Your task to perform on an android device: Search for the new nintendo switch on Walmart. Image 0: 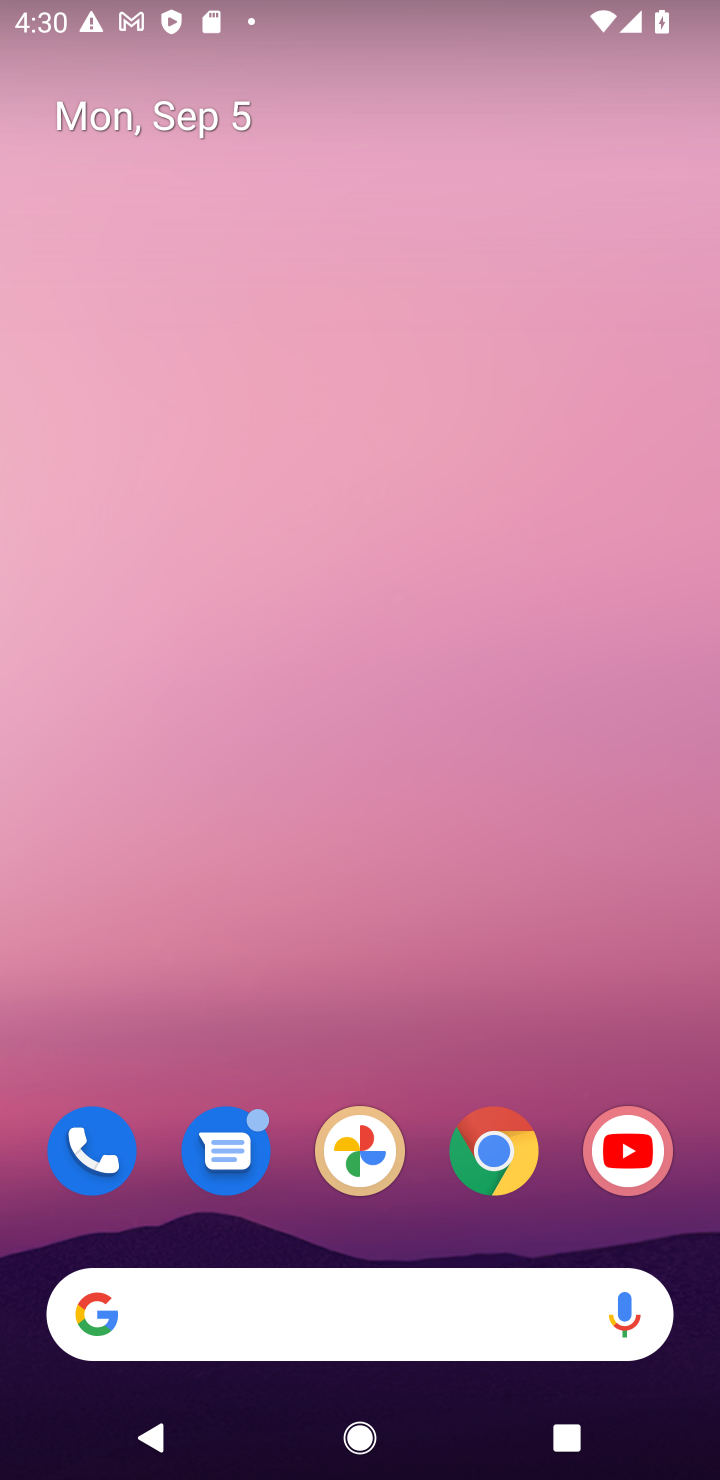
Step 0: click (539, 525)
Your task to perform on an android device: Search for the new nintendo switch on Walmart. Image 1: 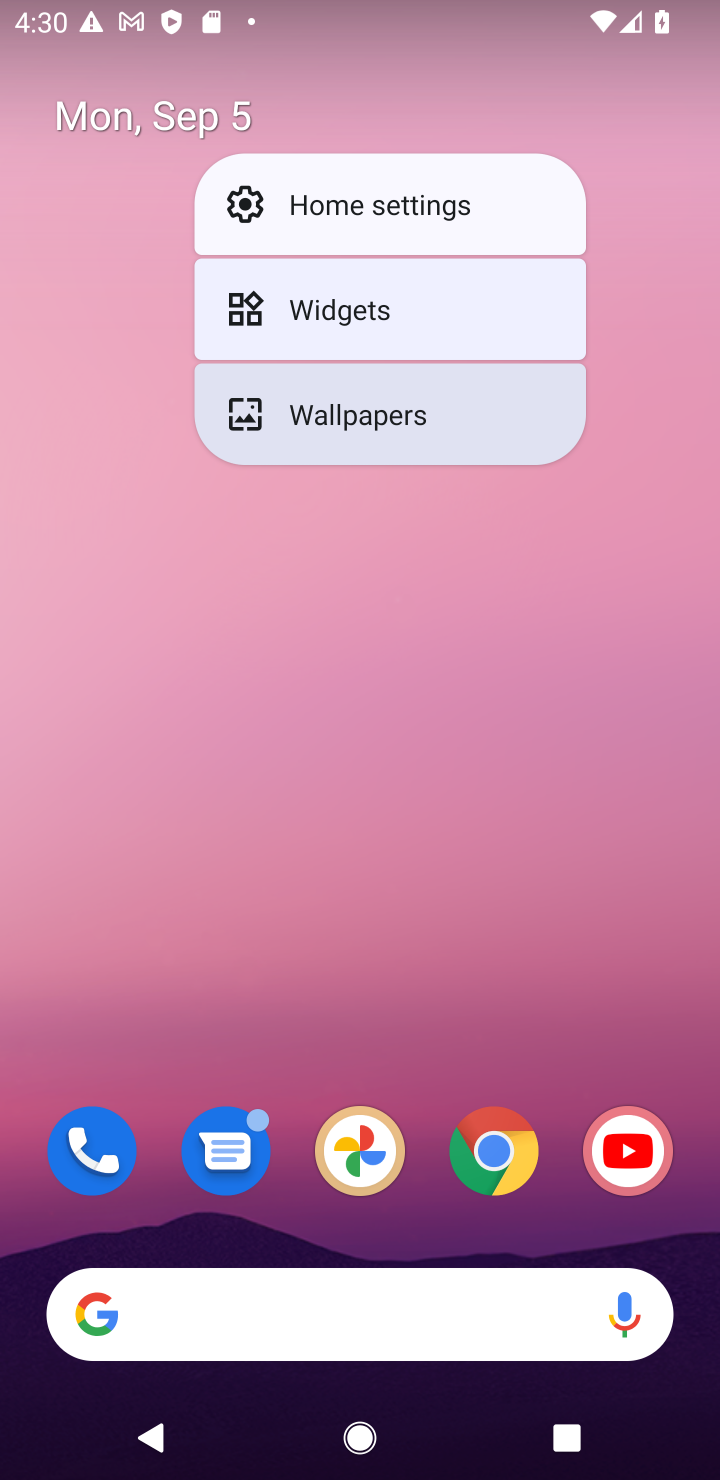
Step 1: click (495, 1146)
Your task to perform on an android device: Search for the new nintendo switch on Walmart. Image 2: 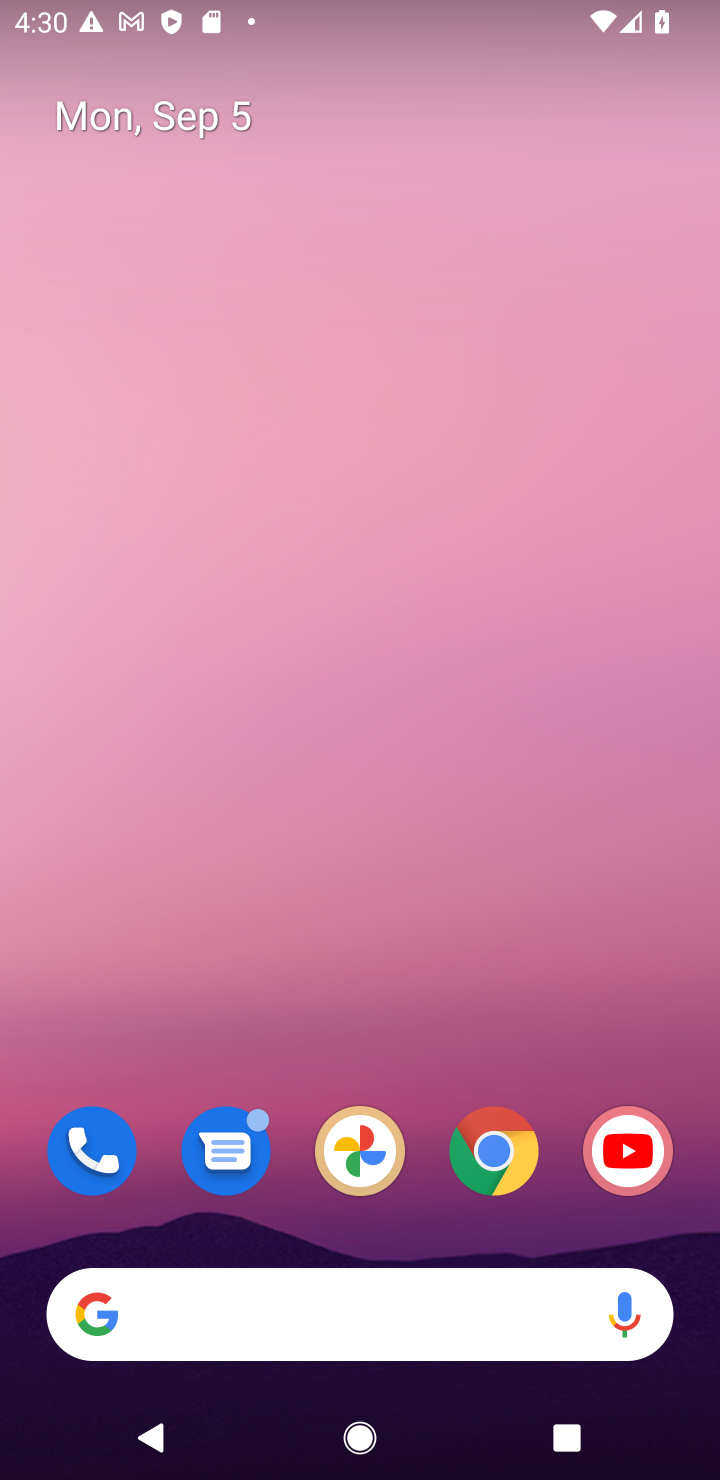
Step 2: click (495, 1164)
Your task to perform on an android device: Search for the new nintendo switch on Walmart. Image 3: 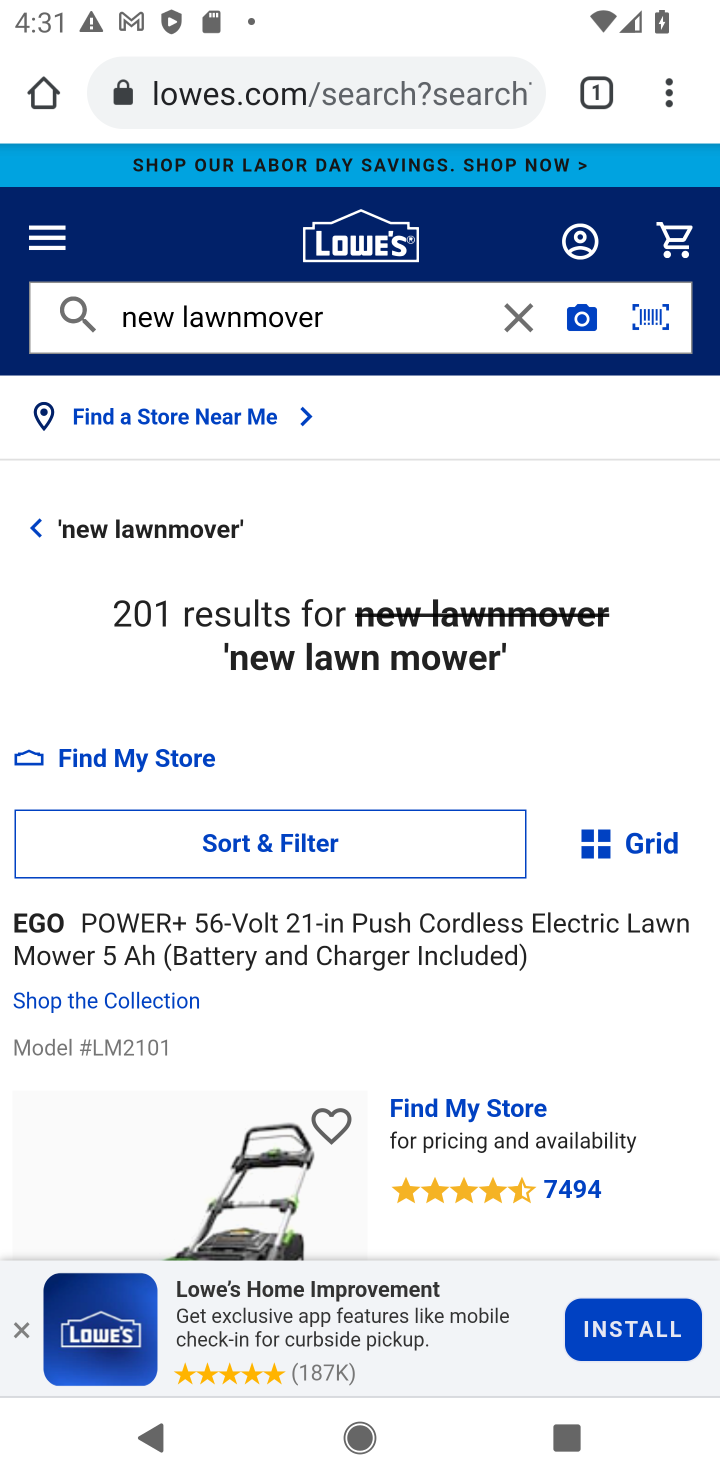
Step 3: click (470, 109)
Your task to perform on an android device: Search for the new nintendo switch on Walmart. Image 4: 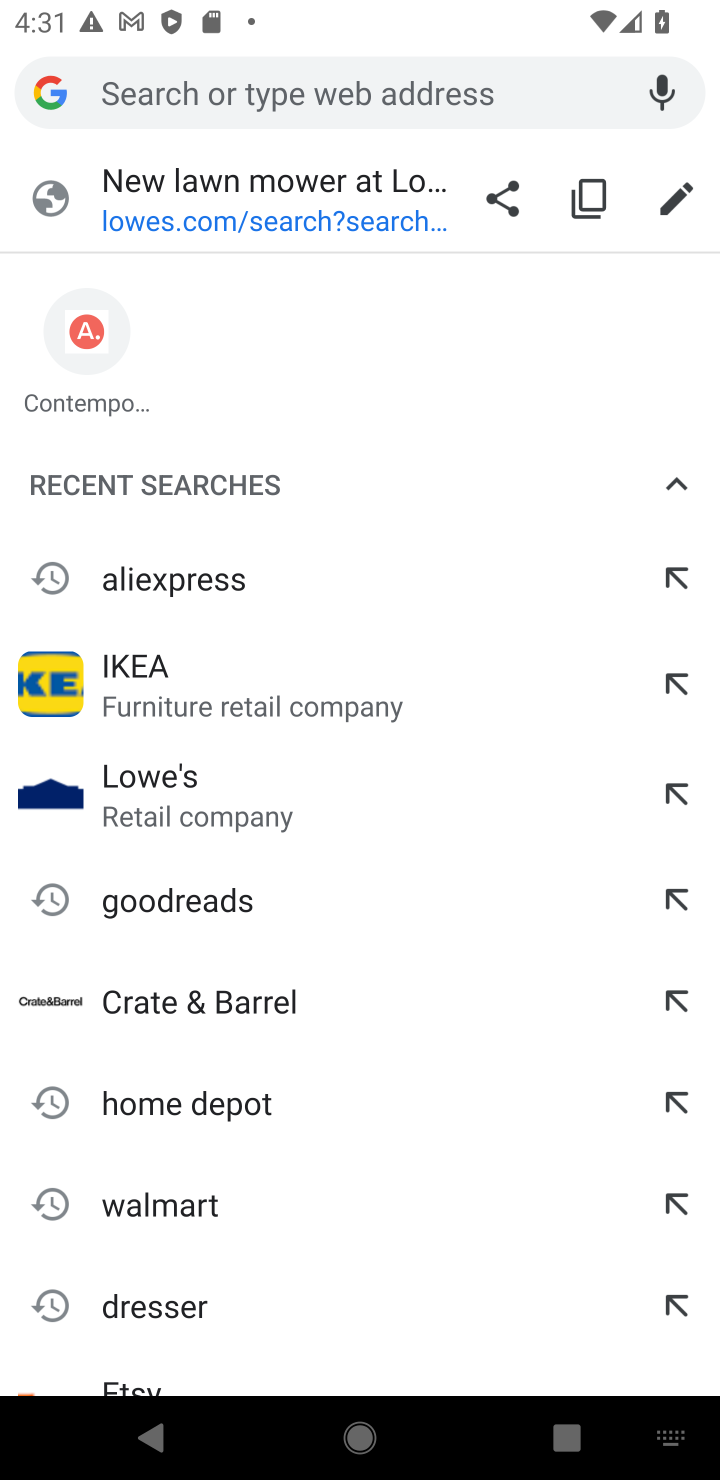
Step 4: click (252, 1225)
Your task to perform on an android device: Search for the new nintendo switch on Walmart. Image 5: 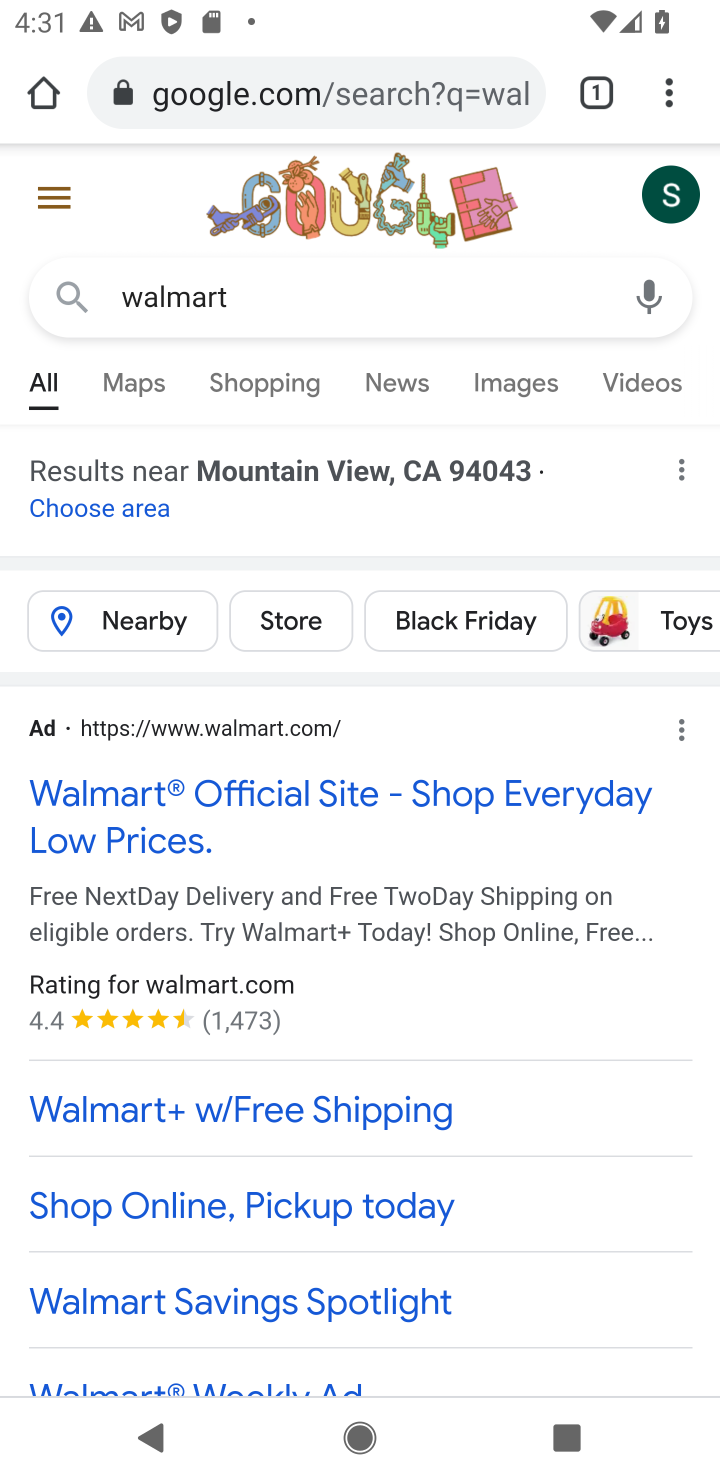
Step 5: drag from (329, 1107) to (257, 14)
Your task to perform on an android device: Search for the new nintendo switch on Walmart. Image 6: 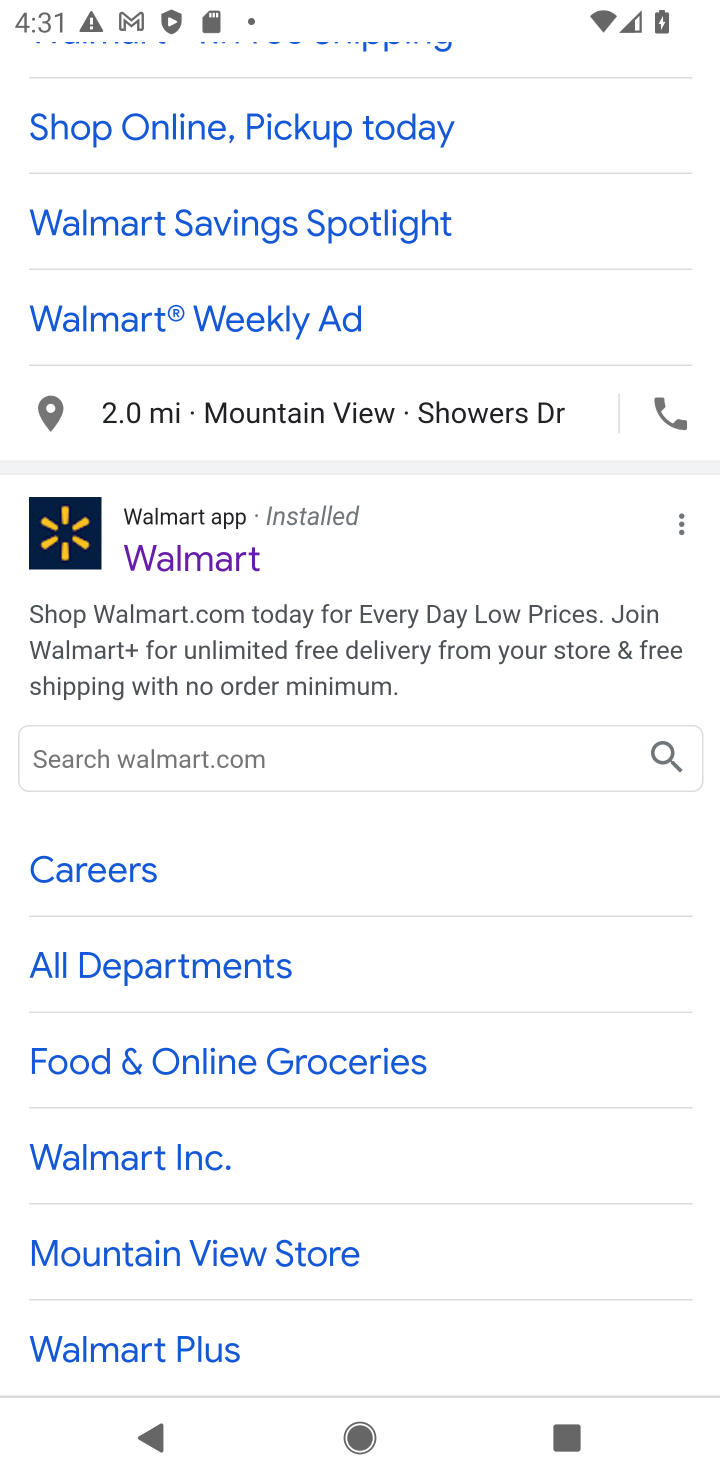
Step 6: click (209, 577)
Your task to perform on an android device: Search for the new nintendo switch on Walmart. Image 7: 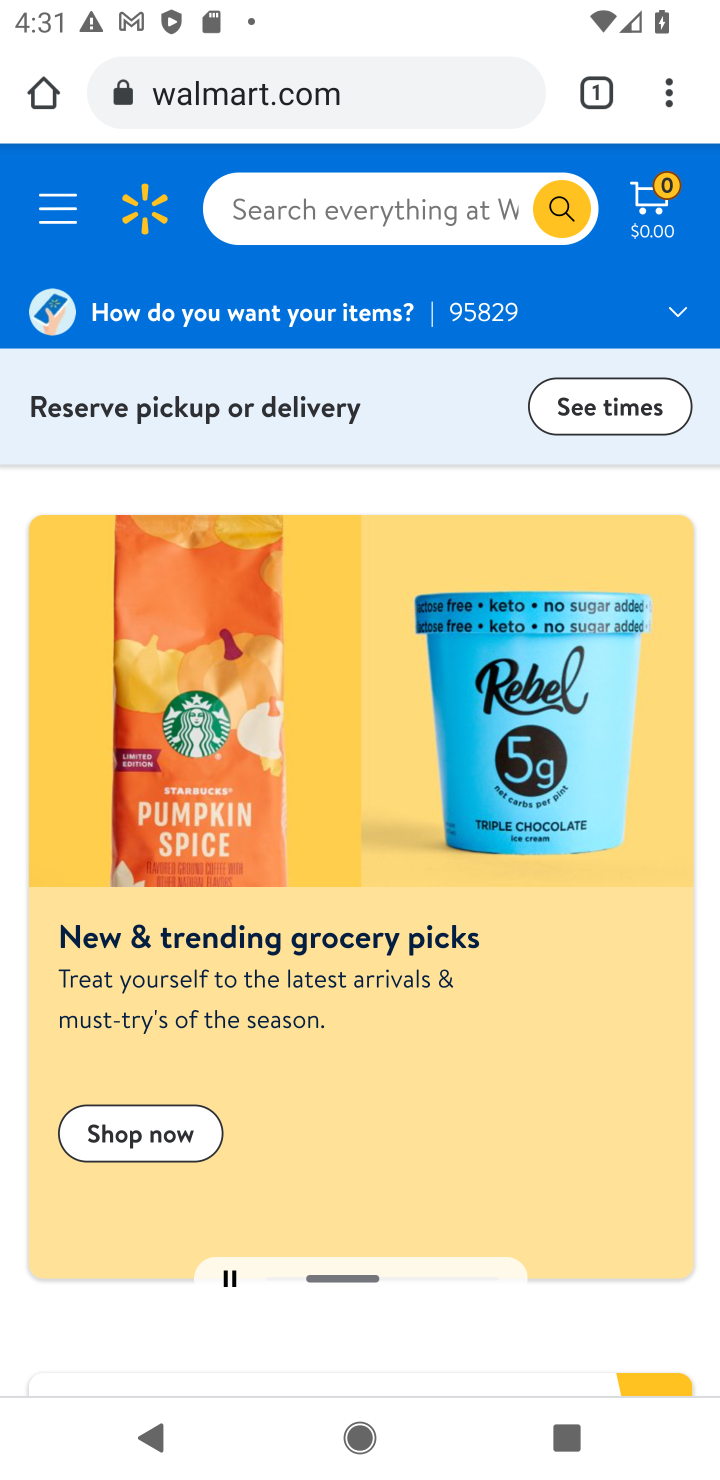
Step 7: click (395, 225)
Your task to perform on an android device: Search for the new nintendo switch on Walmart. Image 8: 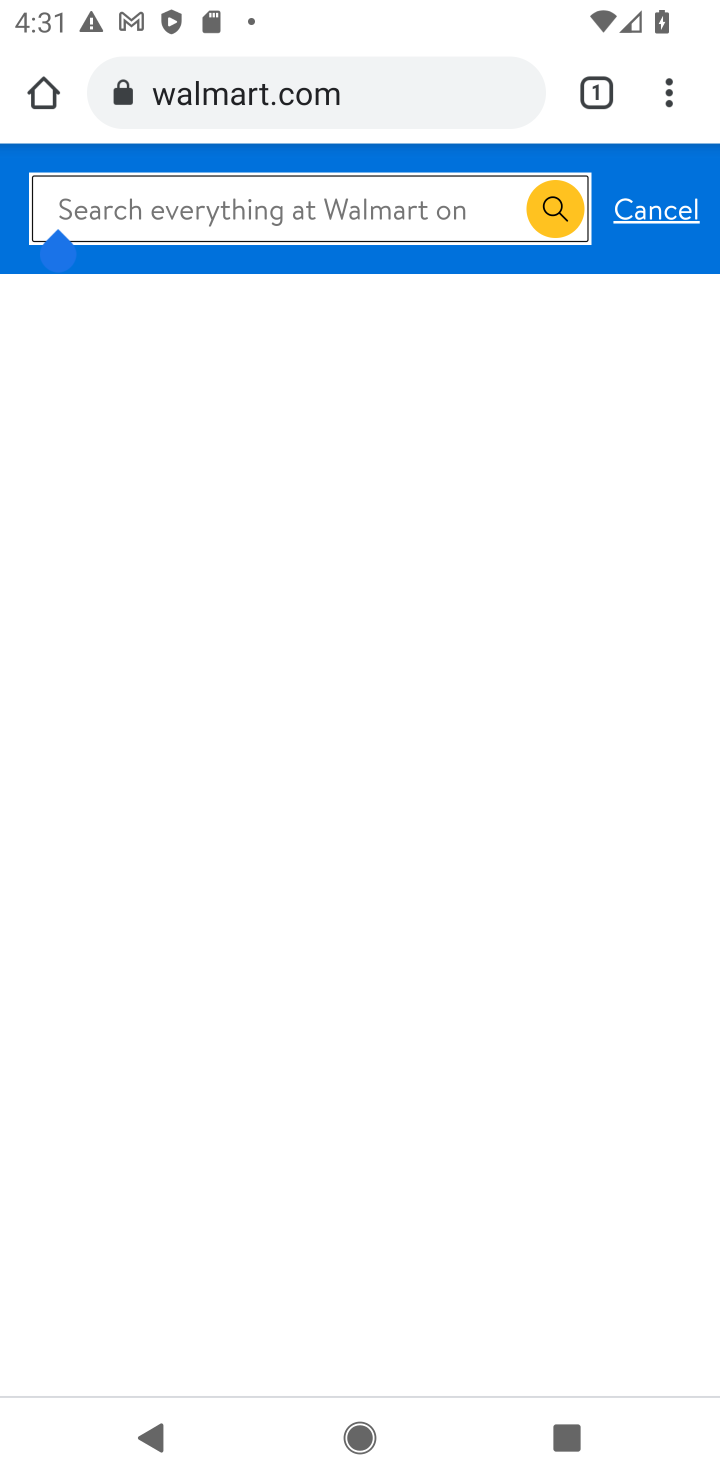
Step 8: type "new nintendo switch"
Your task to perform on an android device: Search for the new nintendo switch on Walmart. Image 9: 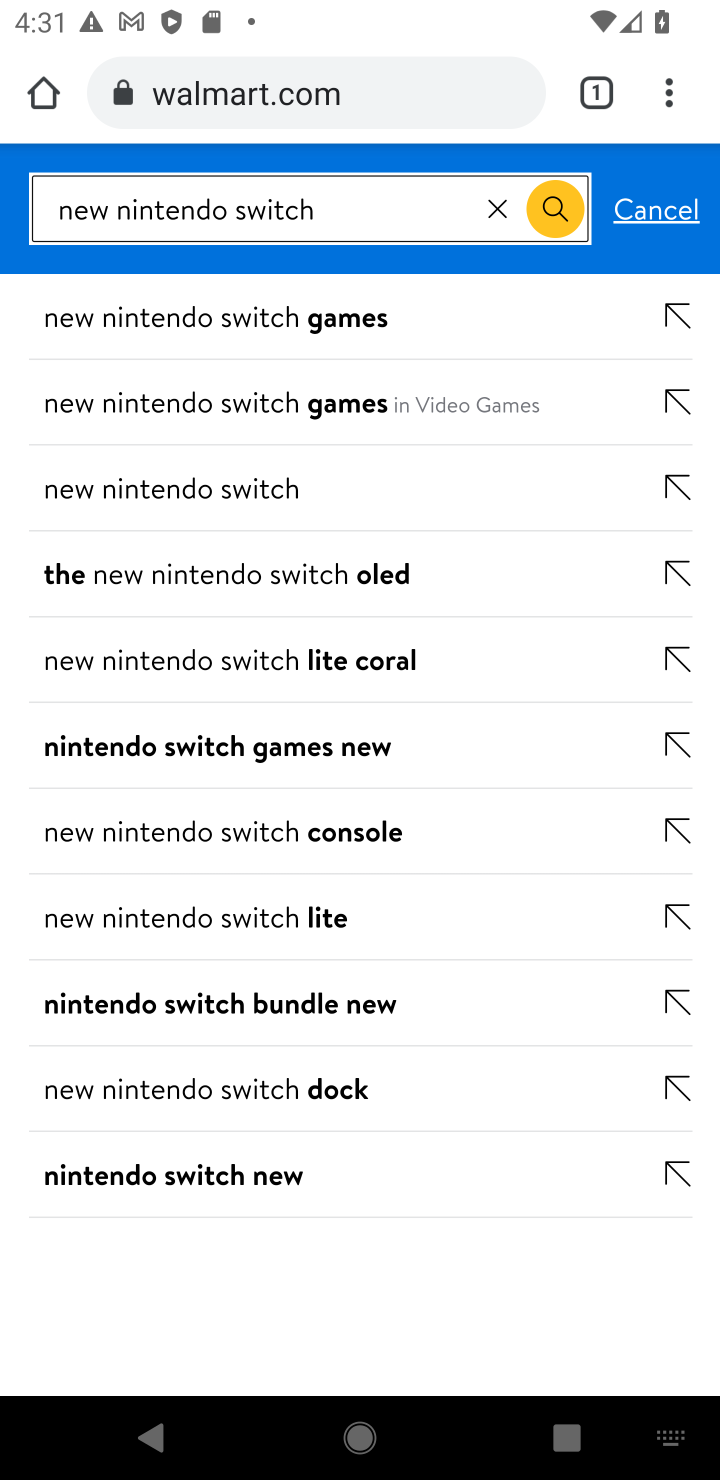
Step 9: click (346, 494)
Your task to perform on an android device: Search for the new nintendo switch on Walmart. Image 10: 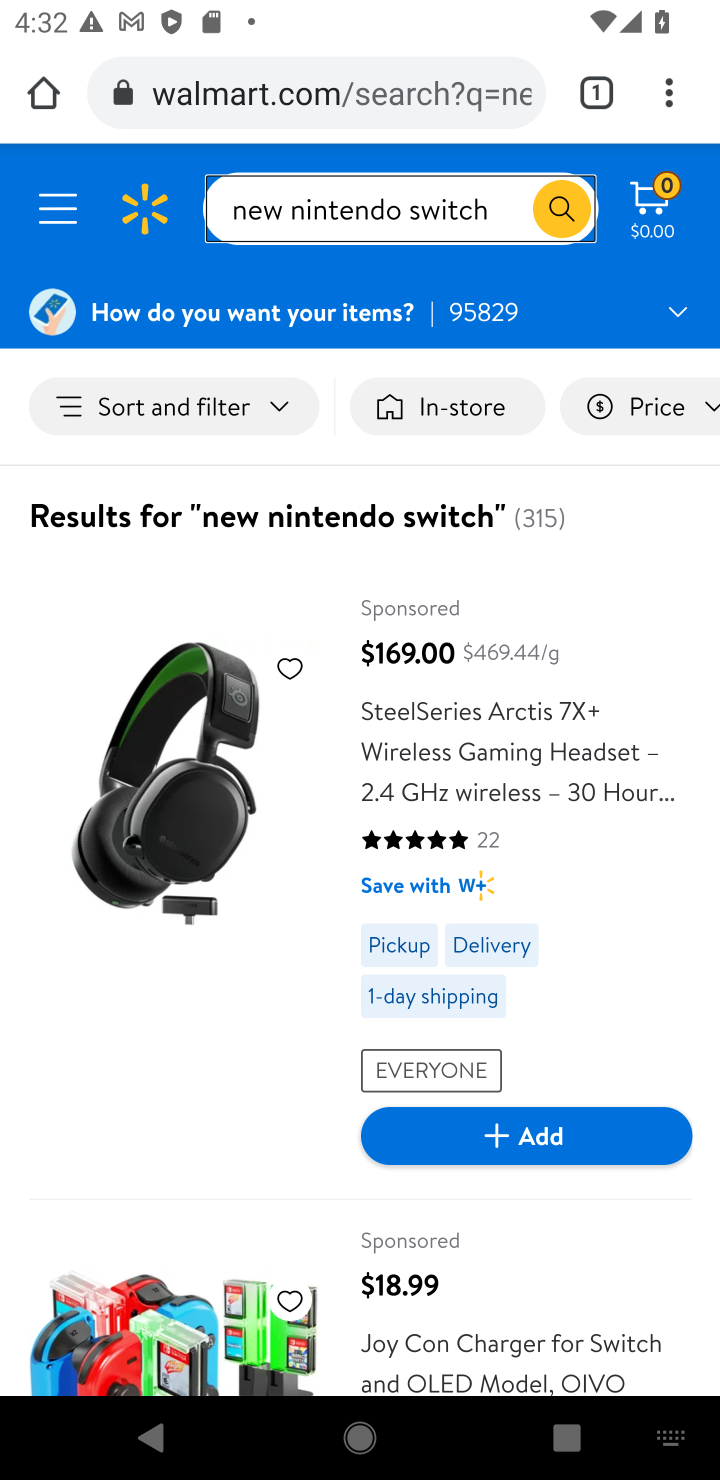
Step 10: task complete